Your task to perform on an android device: turn on bluetooth scan Image 0: 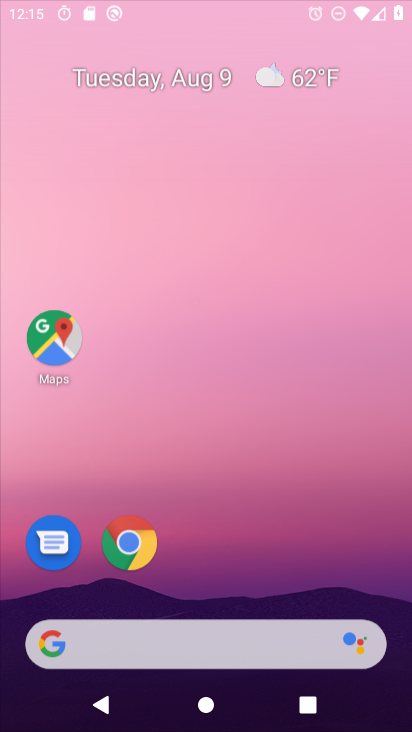
Step 0: press home button
Your task to perform on an android device: turn on bluetooth scan Image 1: 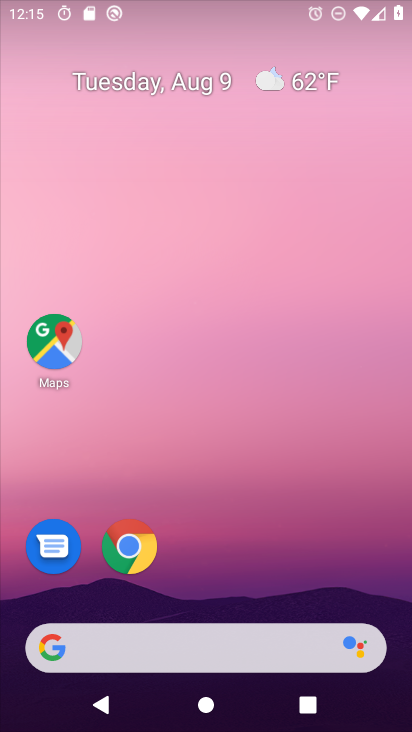
Step 1: press home button
Your task to perform on an android device: turn on bluetooth scan Image 2: 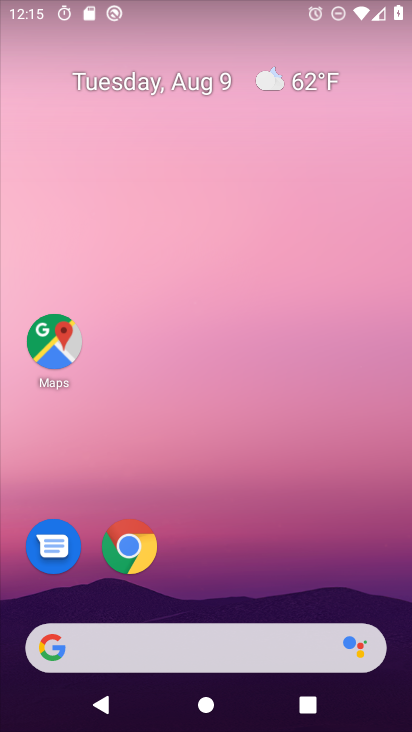
Step 2: drag from (234, 594) to (250, 88)
Your task to perform on an android device: turn on bluetooth scan Image 3: 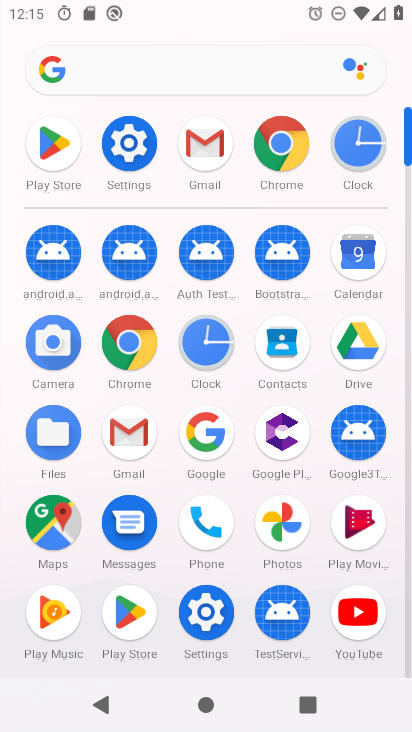
Step 3: click (125, 138)
Your task to perform on an android device: turn on bluetooth scan Image 4: 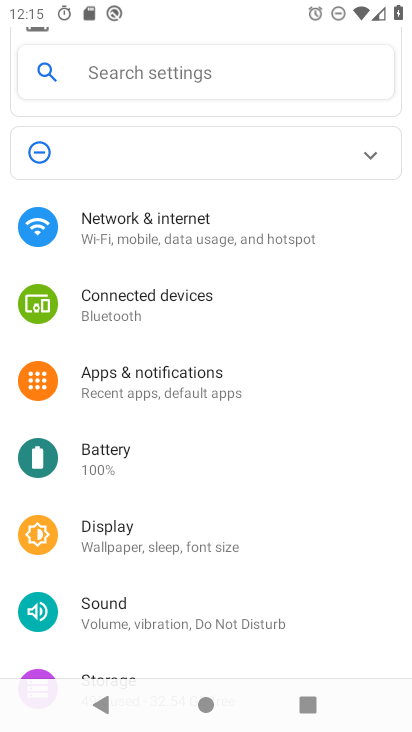
Step 4: drag from (204, 643) to (196, 203)
Your task to perform on an android device: turn on bluetooth scan Image 5: 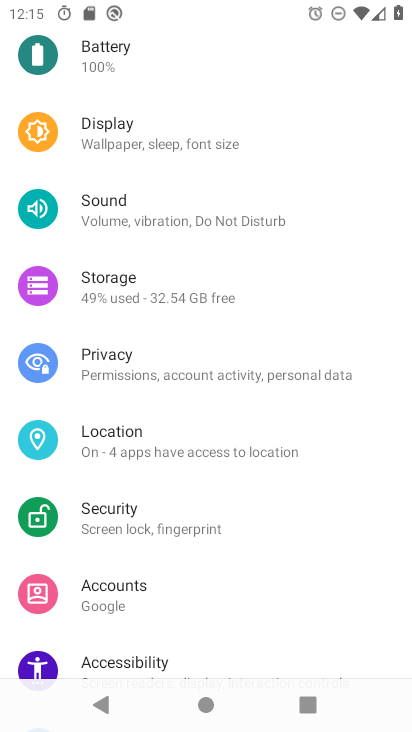
Step 5: click (150, 435)
Your task to perform on an android device: turn on bluetooth scan Image 6: 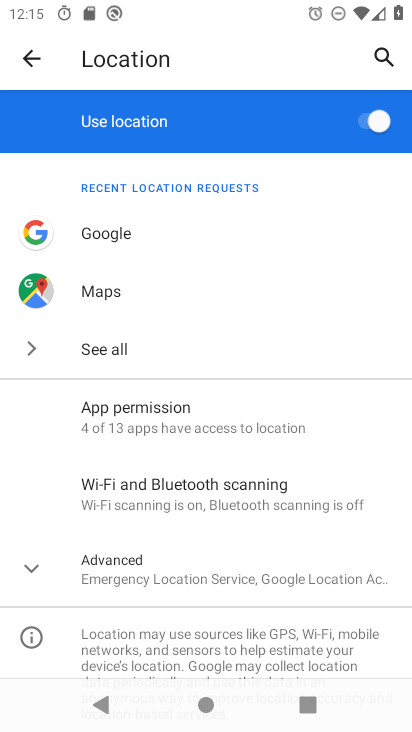
Step 6: click (300, 481)
Your task to perform on an android device: turn on bluetooth scan Image 7: 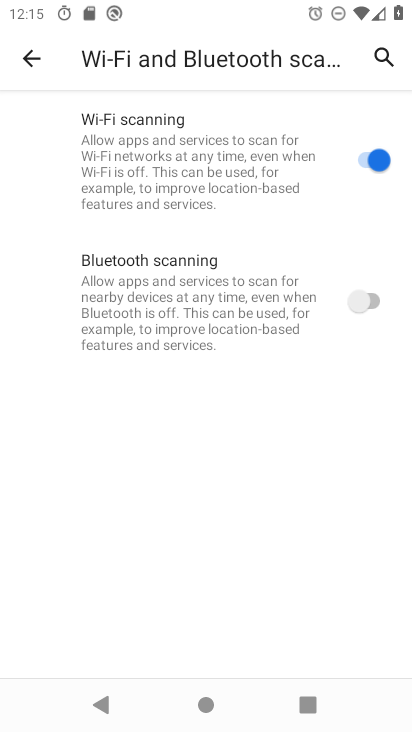
Step 7: click (364, 294)
Your task to perform on an android device: turn on bluetooth scan Image 8: 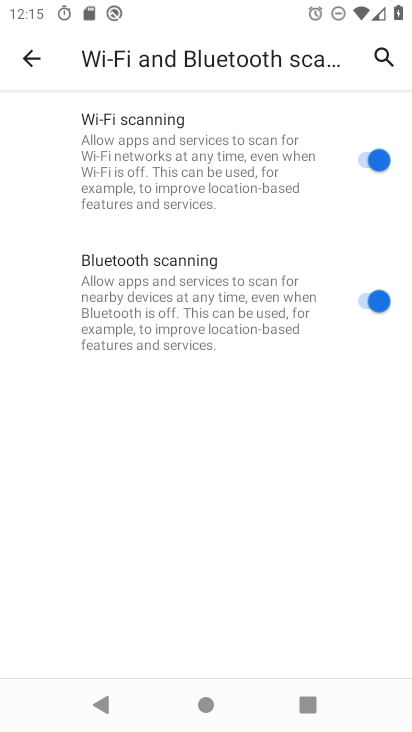
Step 8: task complete